Your task to perform on an android device: add a contact Image 0: 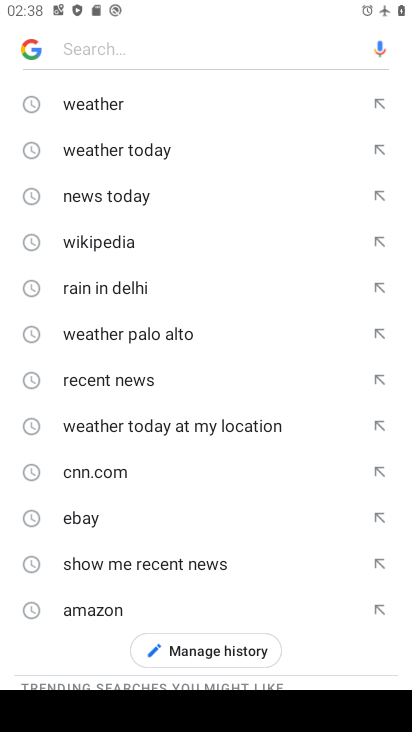
Step 0: press home button
Your task to perform on an android device: add a contact Image 1: 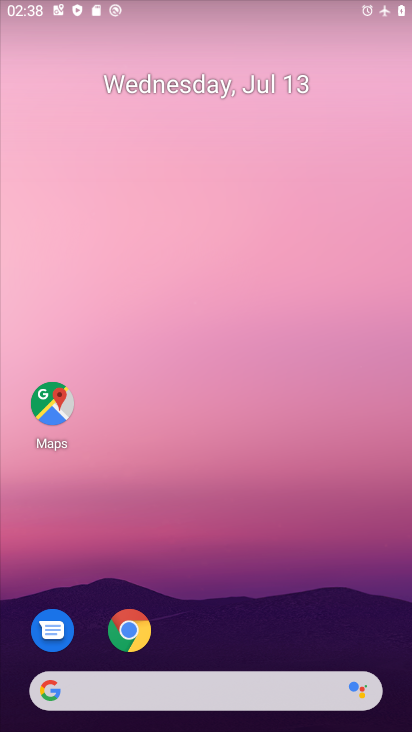
Step 1: drag from (195, 636) to (160, 209)
Your task to perform on an android device: add a contact Image 2: 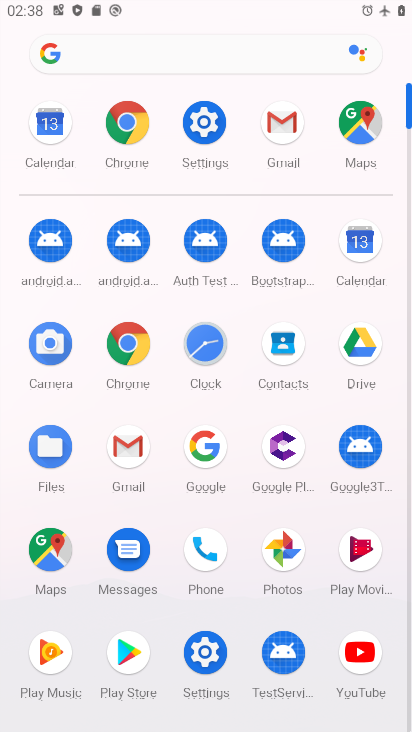
Step 2: click (298, 337)
Your task to perform on an android device: add a contact Image 3: 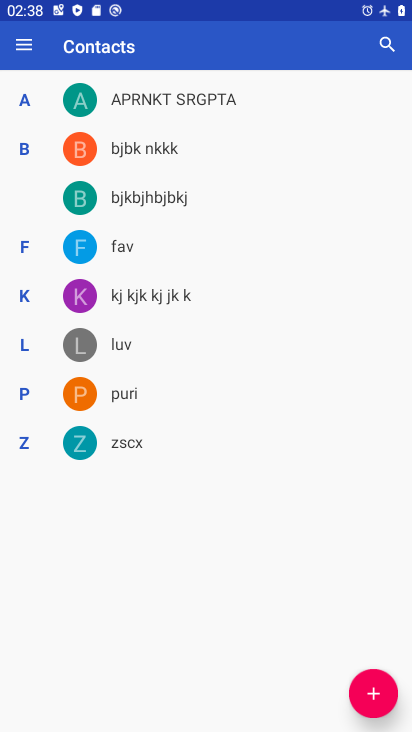
Step 3: click (377, 692)
Your task to perform on an android device: add a contact Image 4: 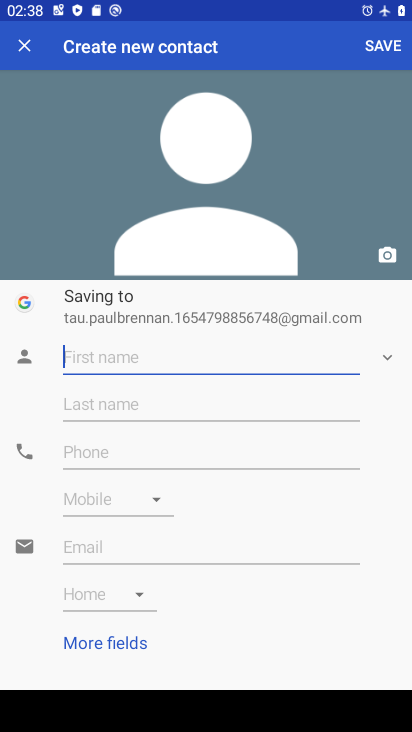
Step 4: type "joji"
Your task to perform on an android device: add a contact Image 5: 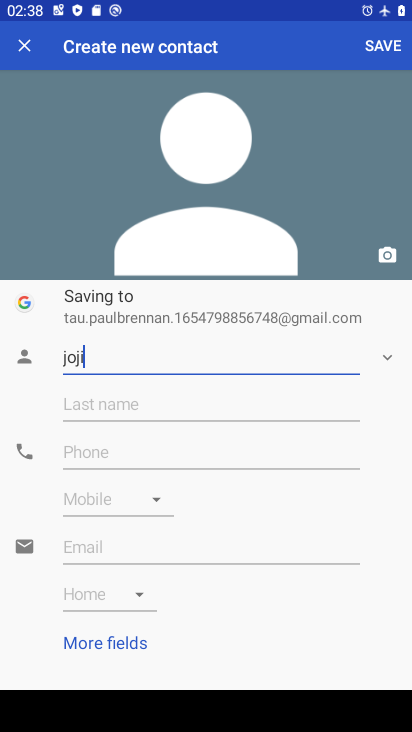
Step 5: click (101, 455)
Your task to perform on an android device: add a contact Image 6: 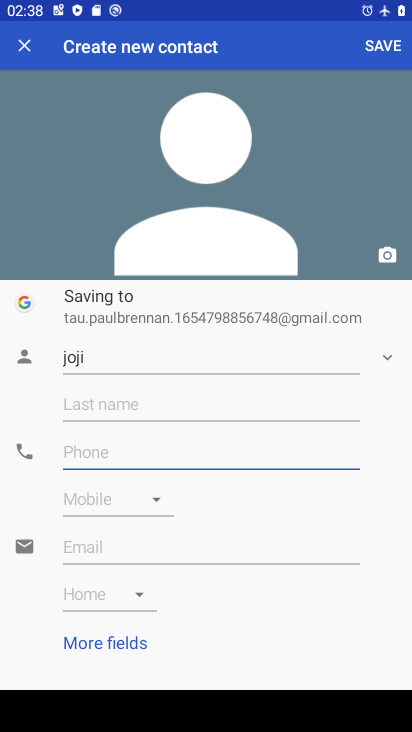
Step 6: type "877667897767"
Your task to perform on an android device: add a contact Image 7: 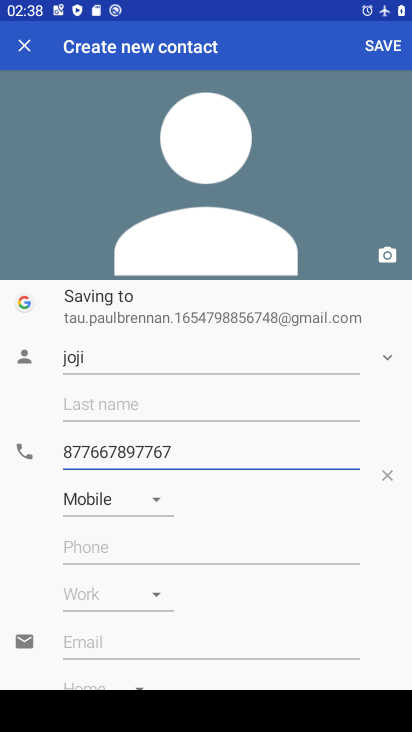
Step 7: click (371, 41)
Your task to perform on an android device: add a contact Image 8: 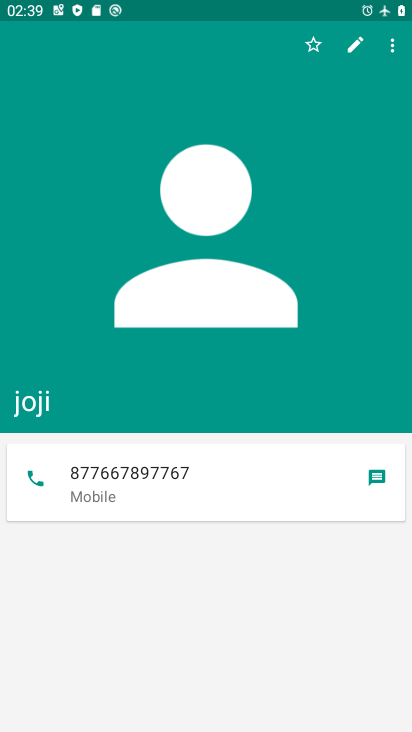
Step 8: task complete